Your task to perform on an android device: Open Google Maps and go to "Timeline" Image 0: 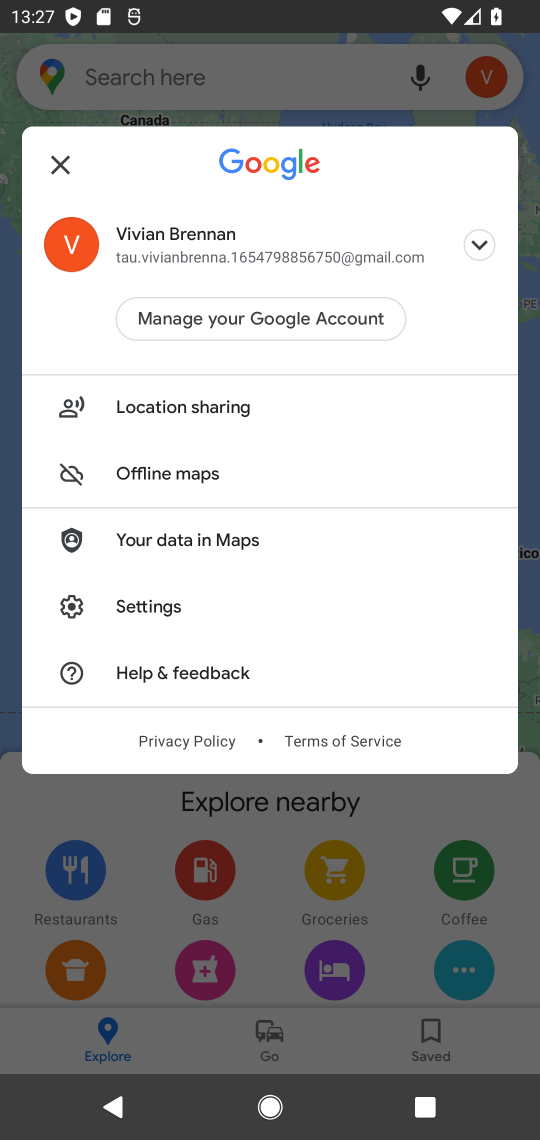
Step 0: press home button
Your task to perform on an android device: Open Google Maps and go to "Timeline" Image 1: 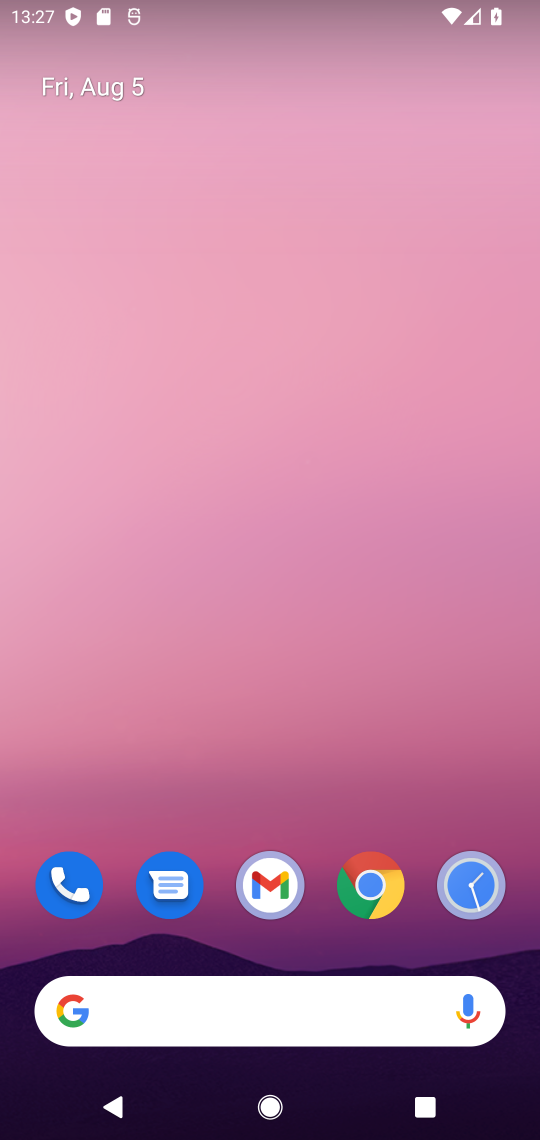
Step 1: click (253, 110)
Your task to perform on an android device: Open Google Maps and go to "Timeline" Image 2: 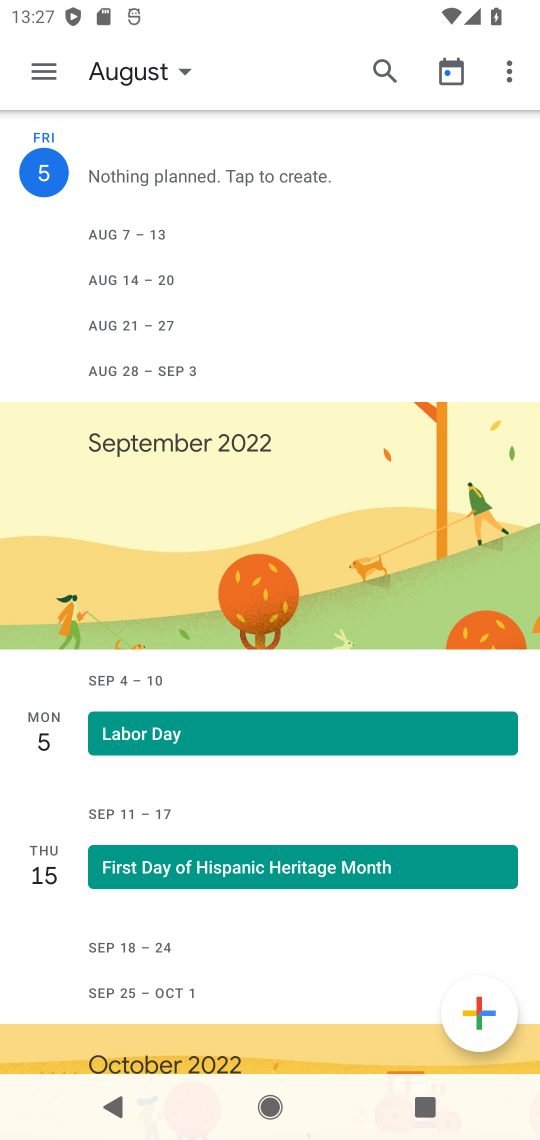
Step 2: press home button
Your task to perform on an android device: Open Google Maps and go to "Timeline" Image 3: 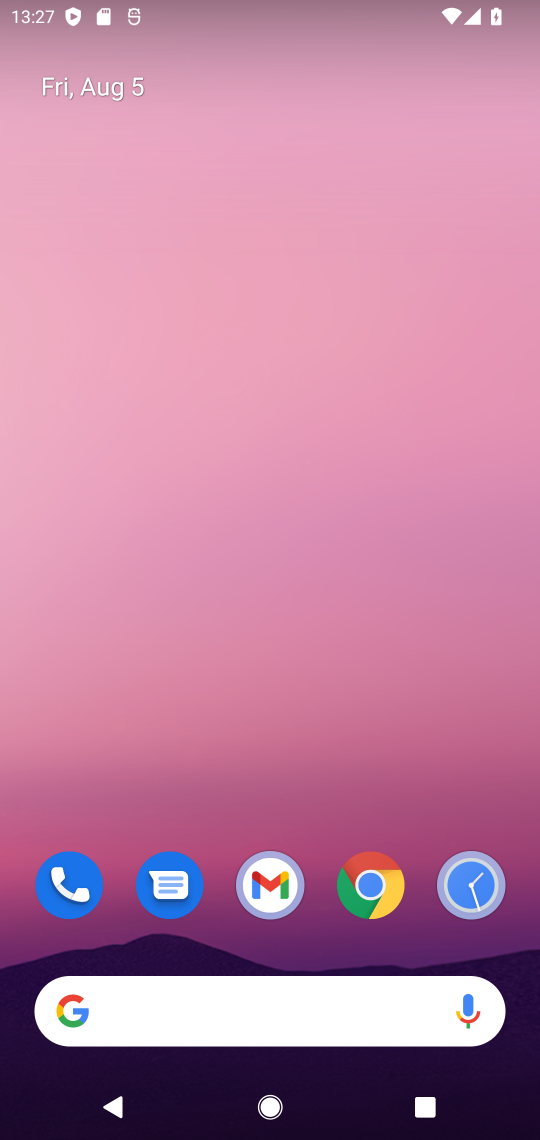
Step 3: drag from (221, 956) to (242, 270)
Your task to perform on an android device: Open Google Maps and go to "Timeline" Image 4: 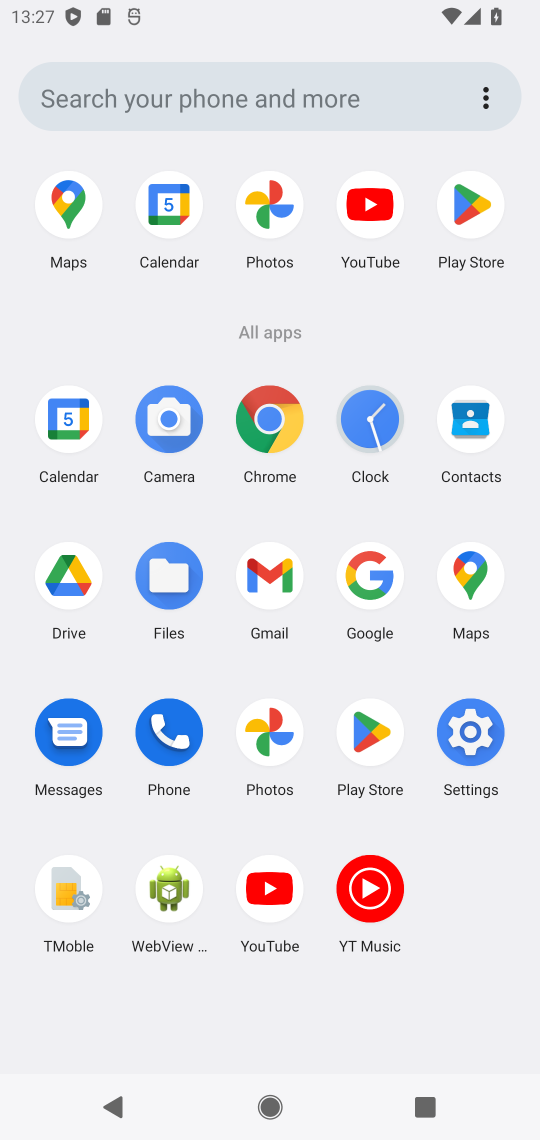
Step 4: click (477, 568)
Your task to perform on an android device: Open Google Maps and go to "Timeline" Image 5: 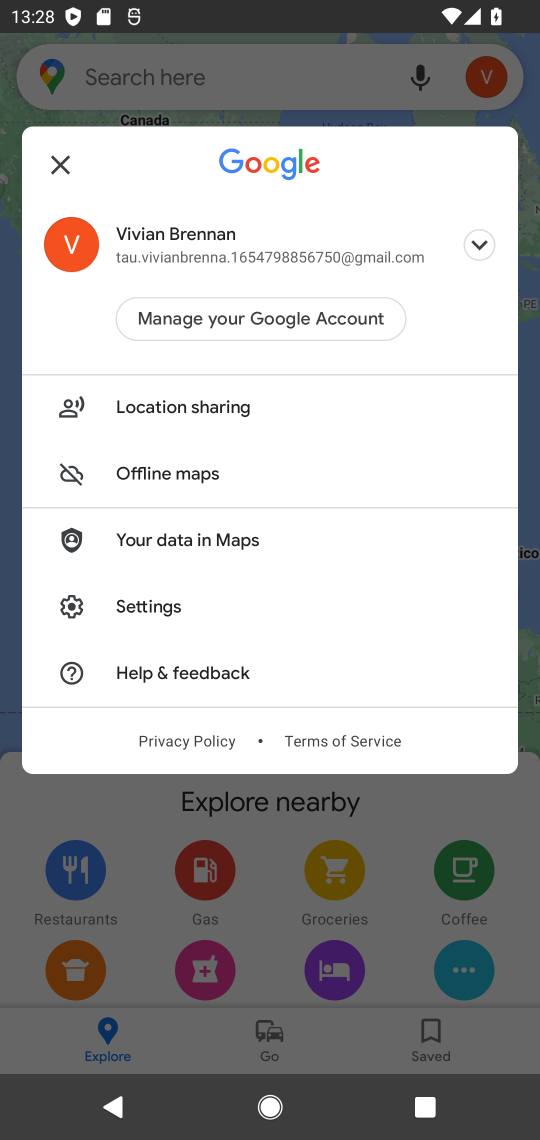
Step 5: click (49, 160)
Your task to perform on an android device: Open Google Maps and go to "Timeline" Image 6: 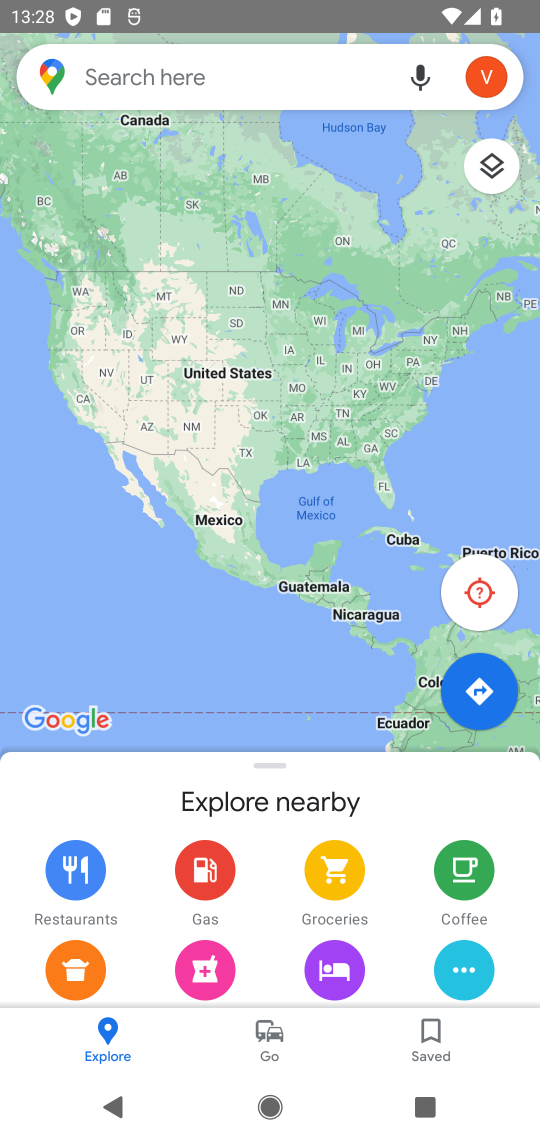
Step 6: click (58, 82)
Your task to perform on an android device: Open Google Maps and go to "Timeline" Image 7: 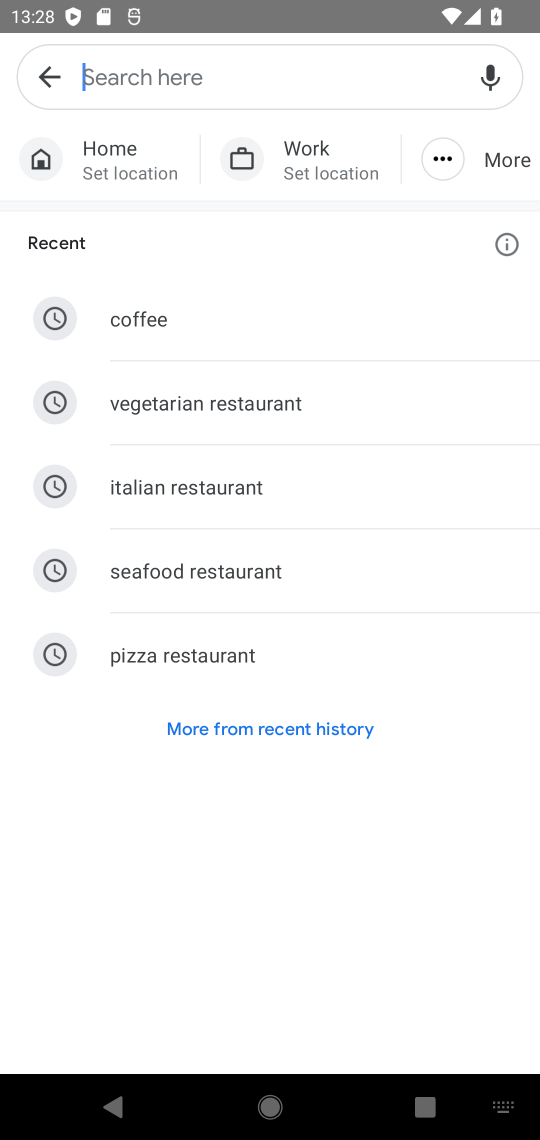
Step 7: click (44, 76)
Your task to perform on an android device: Open Google Maps and go to "Timeline" Image 8: 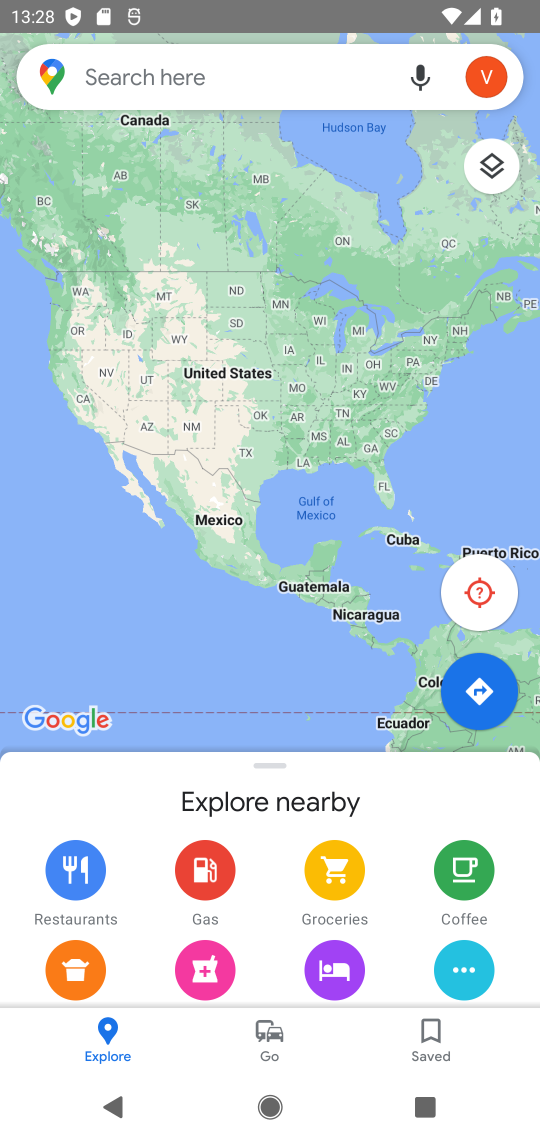
Step 8: click (493, 80)
Your task to perform on an android device: Open Google Maps and go to "Timeline" Image 9: 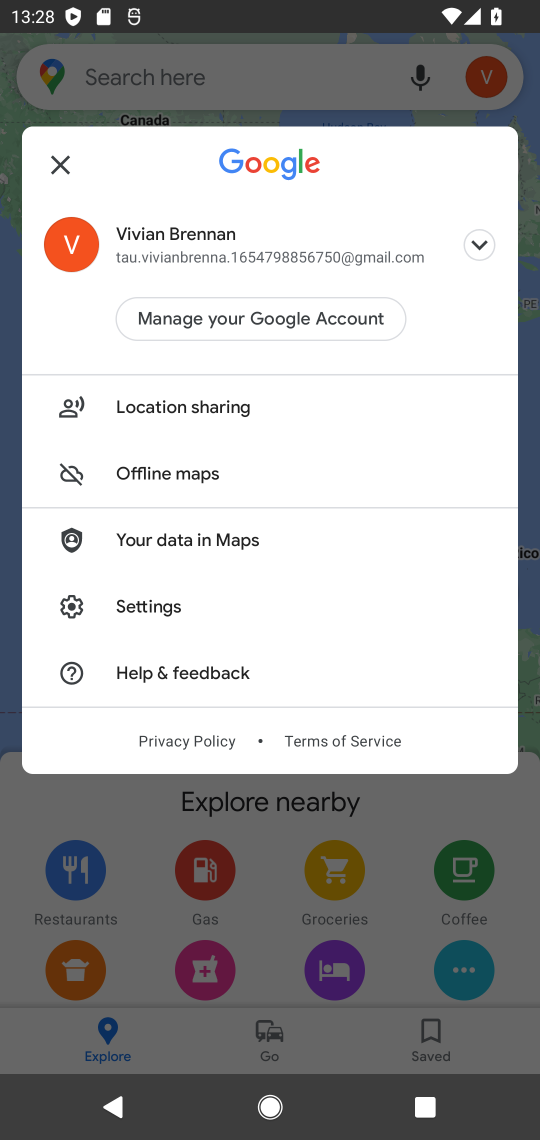
Step 9: click (181, 546)
Your task to perform on an android device: Open Google Maps and go to "Timeline" Image 10: 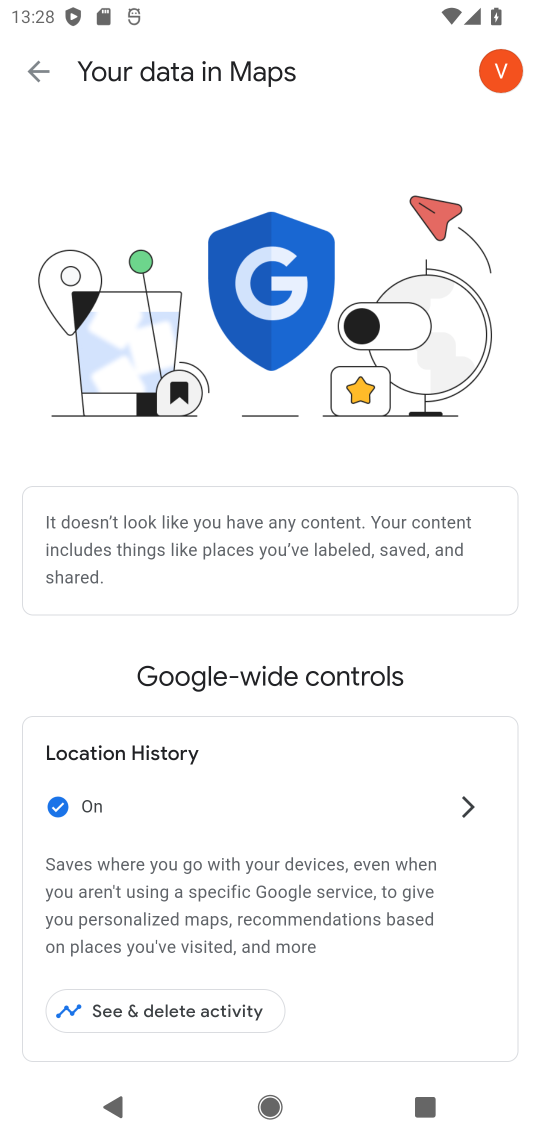
Step 10: task complete